Your task to perform on an android device: What's on my calendar today? Image 0: 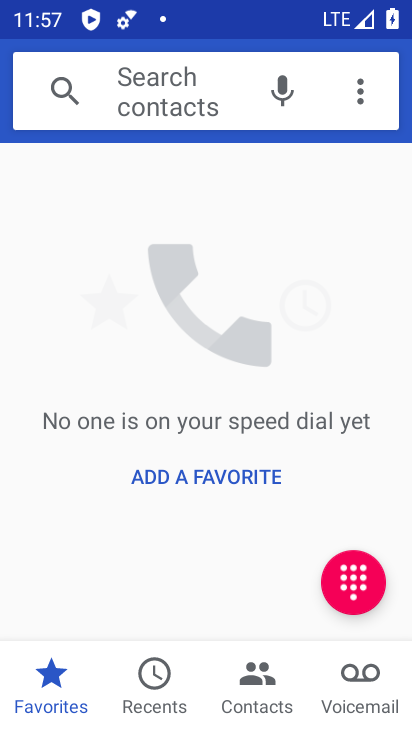
Step 0: press home button
Your task to perform on an android device: What's on my calendar today? Image 1: 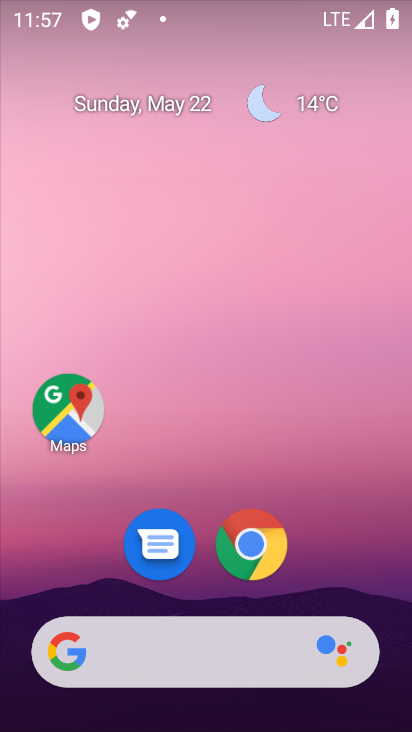
Step 1: drag from (296, 583) to (184, 16)
Your task to perform on an android device: What's on my calendar today? Image 2: 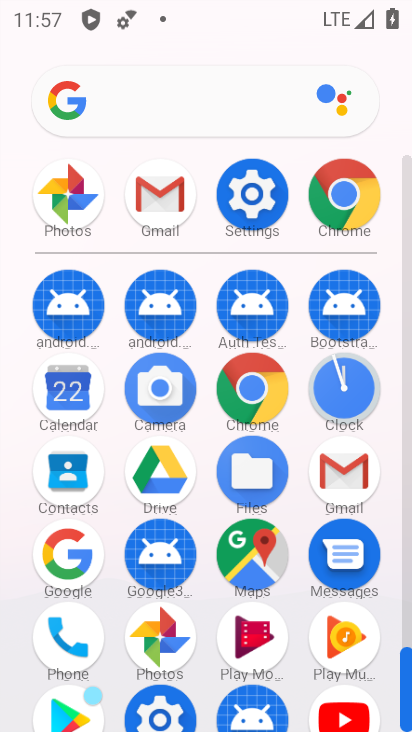
Step 2: press home button
Your task to perform on an android device: What's on my calendar today? Image 3: 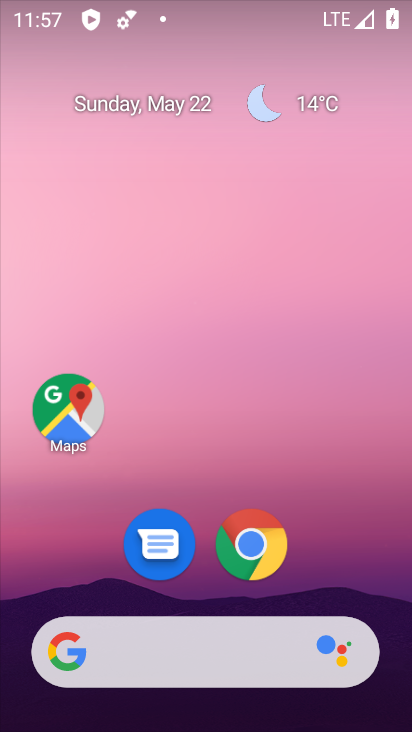
Step 3: drag from (311, 544) to (269, 120)
Your task to perform on an android device: What's on my calendar today? Image 4: 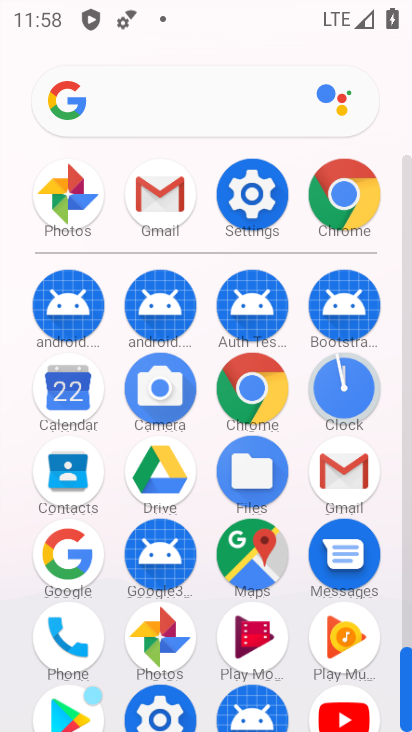
Step 4: drag from (284, 644) to (263, 465)
Your task to perform on an android device: What's on my calendar today? Image 5: 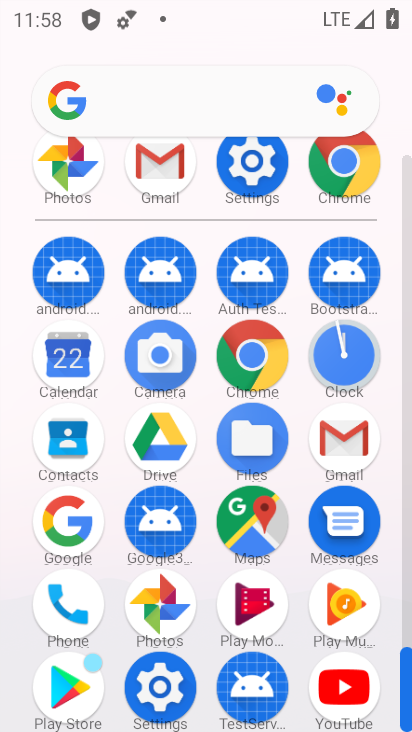
Step 5: drag from (289, 375) to (269, 644)
Your task to perform on an android device: What's on my calendar today? Image 6: 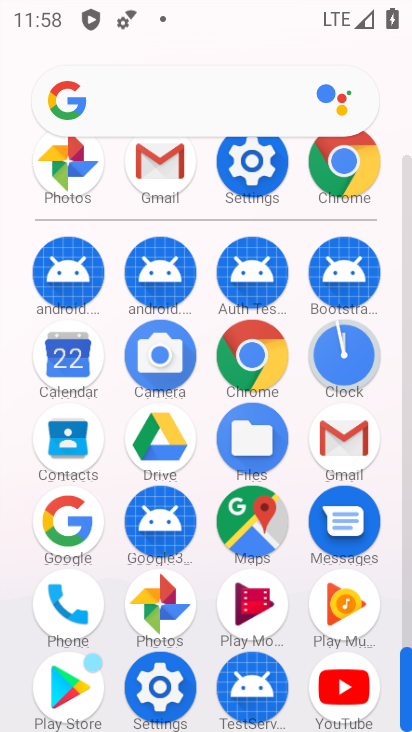
Step 6: click (80, 378)
Your task to perform on an android device: What's on my calendar today? Image 7: 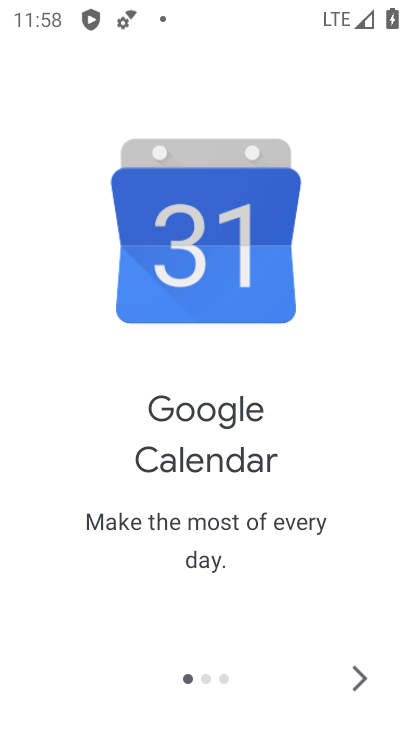
Step 7: click (351, 674)
Your task to perform on an android device: What's on my calendar today? Image 8: 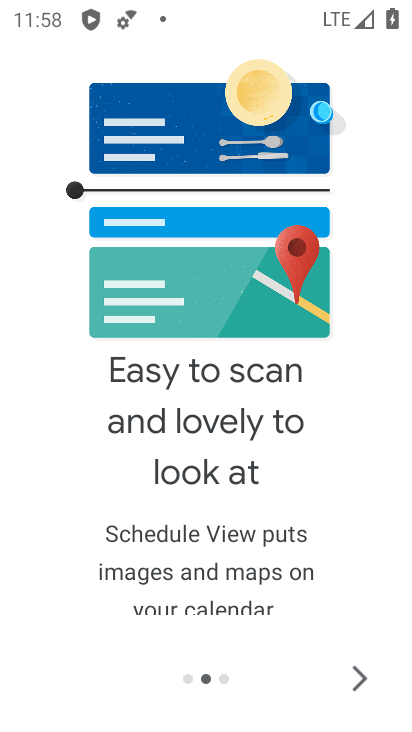
Step 8: click (361, 679)
Your task to perform on an android device: What's on my calendar today? Image 9: 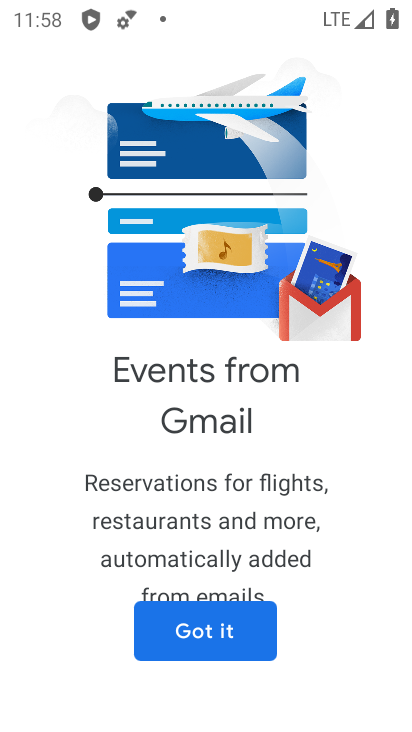
Step 9: click (245, 628)
Your task to perform on an android device: What's on my calendar today? Image 10: 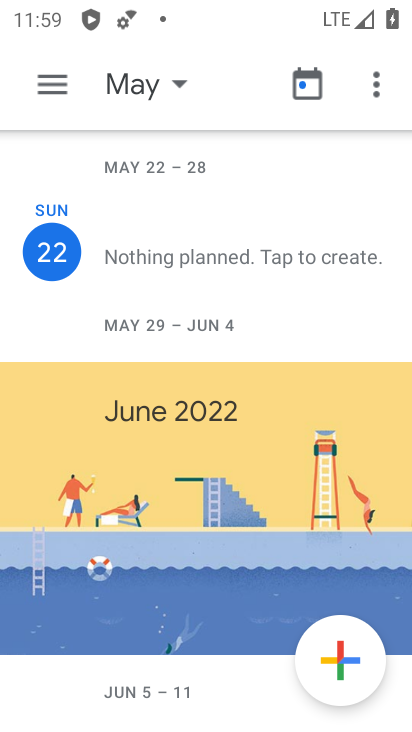
Step 10: click (39, 85)
Your task to perform on an android device: What's on my calendar today? Image 11: 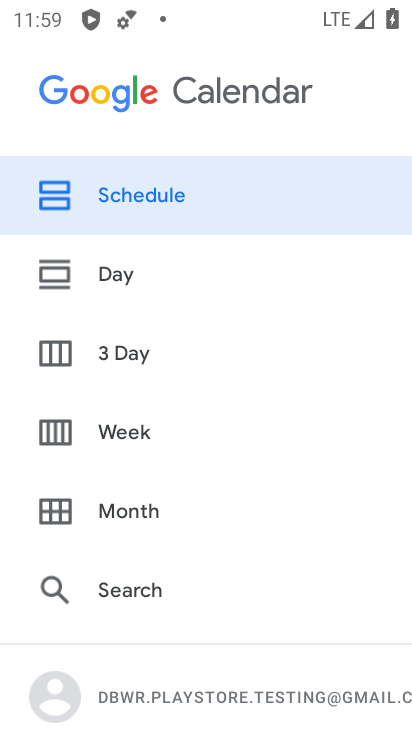
Step 11: click (133, 195)
Your task to perform on an android device: What's on my calendar today? Image 12: 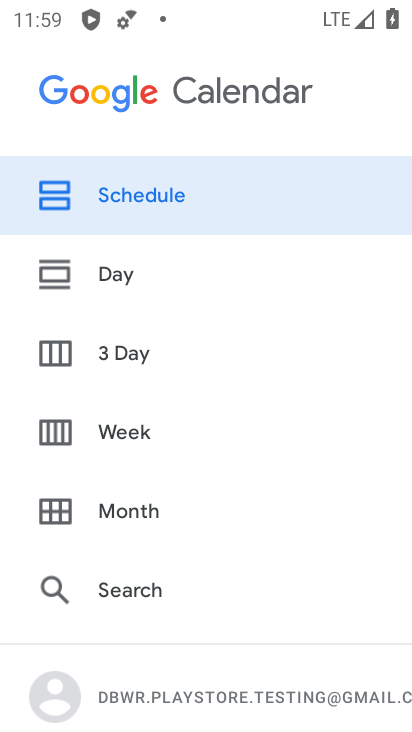
Step 12: press back button
Your task to perform on an android device: What's on my calendar today? Image 13: 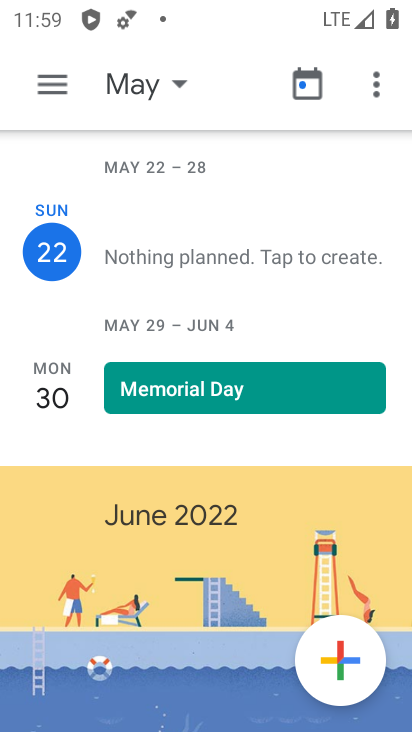
Step 13: click (150, 94)
Your task to perform on an android device: What's on my calendar today? Image 14: 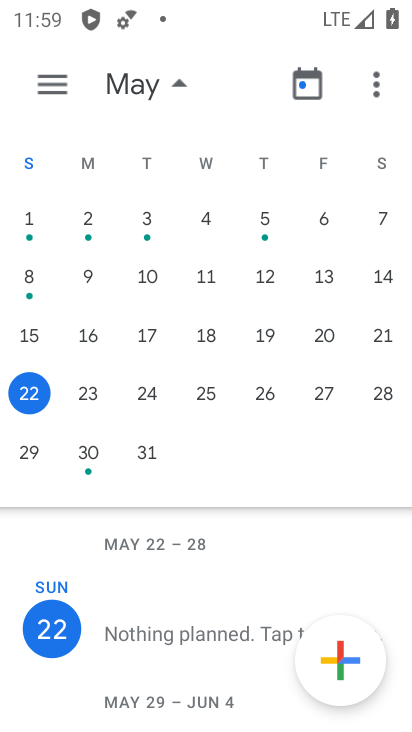
Step 14: click (88, 397)
Your task to perform on an android device: What's on my calendar today? Image 15: 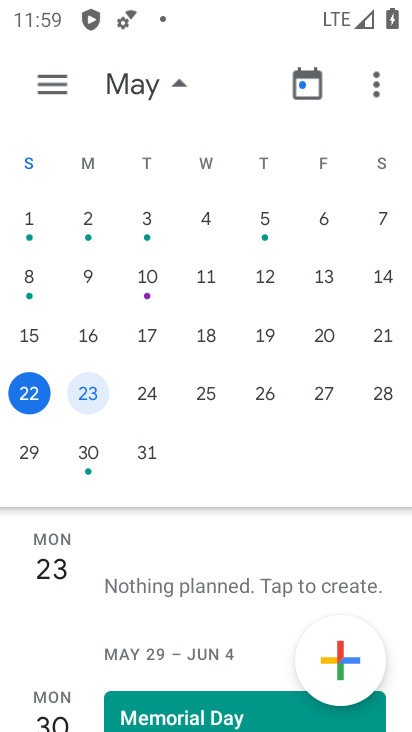
Step 15: drag from (200, 665) to (278, 356)
Your task to perform on an android device: What's on my calendar today? Image 16: 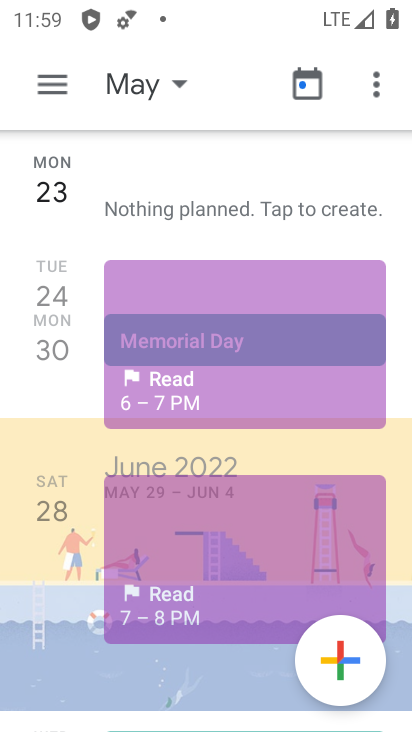
Step 16: drag from (174, 258) to (115, 605)
Your task to perform on an android device: What's on my calendar today? Image 17: 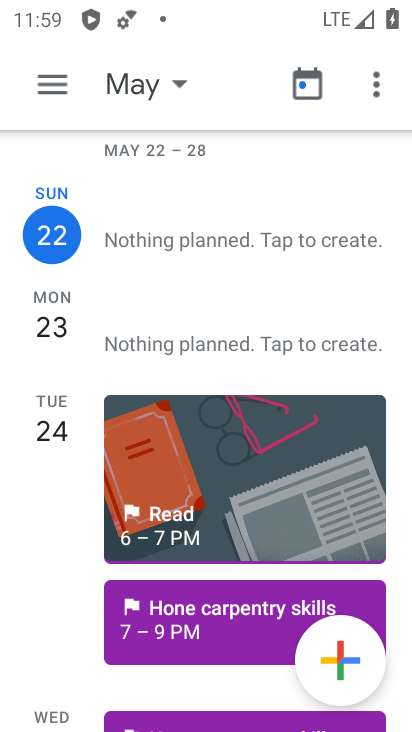
Step 17: click (55, 233)
Your task to perform on an android device: What's on my calendar today? Image 18: 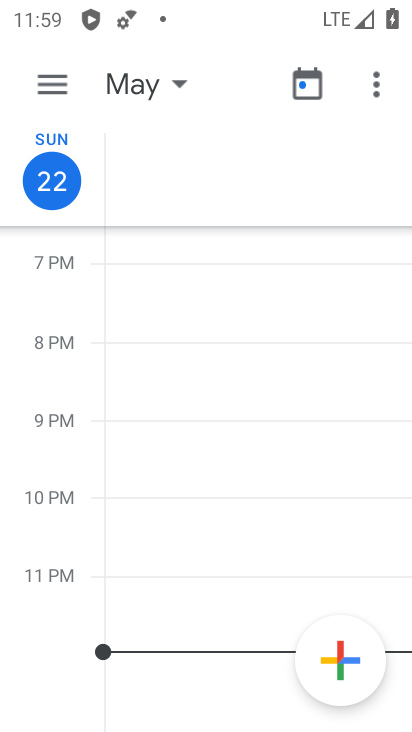
Step 18: task complete